Your task to perform on an android device: turn on priority inbox in the gmail app Image 0: 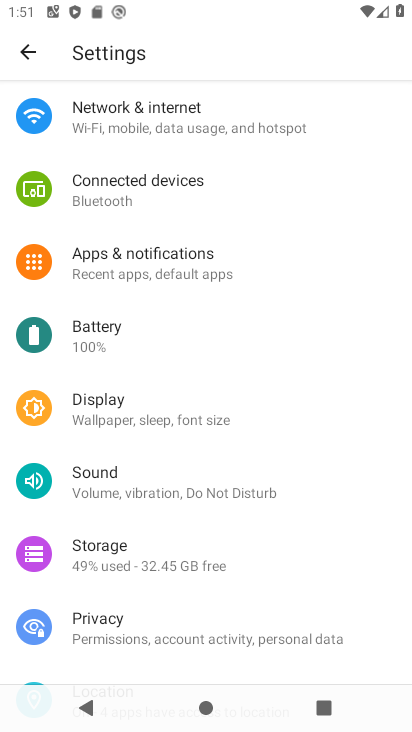
Step 0: drag from (240, 195) to (208, 567)
Your task to perform on an android device: turn on priority inbox in the gmail app Image 1: 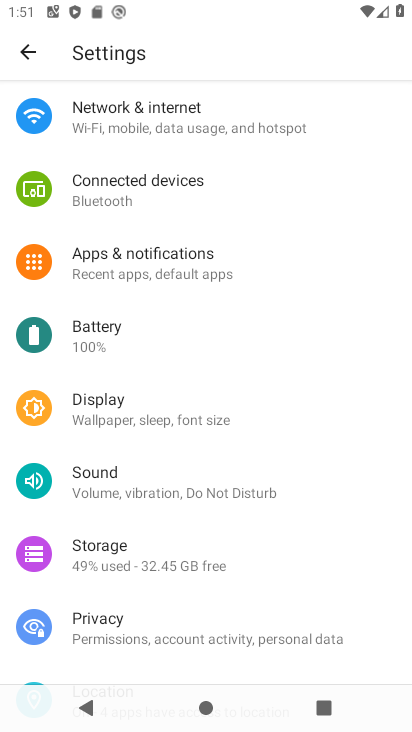
Step 1: press home button
Your task to perform on an android device: turn on priority inbox in the gmail app Image 2: 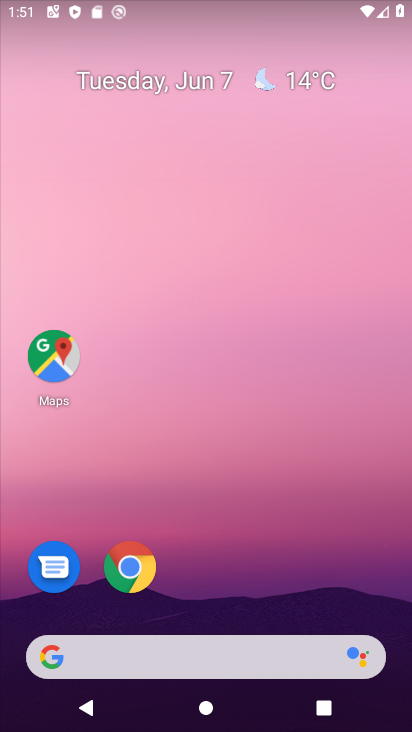
Step 2: drag from (302, 531) to (297, 0)
Your task to perform on an android device: turn on priority inbox in the gmail app Image 3: 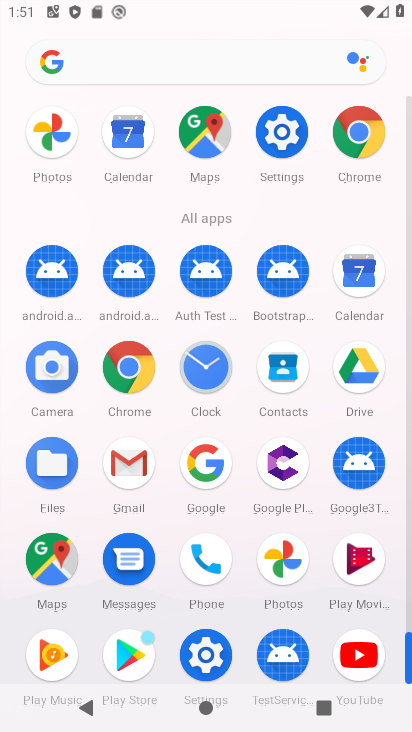
Step 3: click (147, 461)
Your task to perform on an android device: turn on priority inbox in the gmail app Image 4: 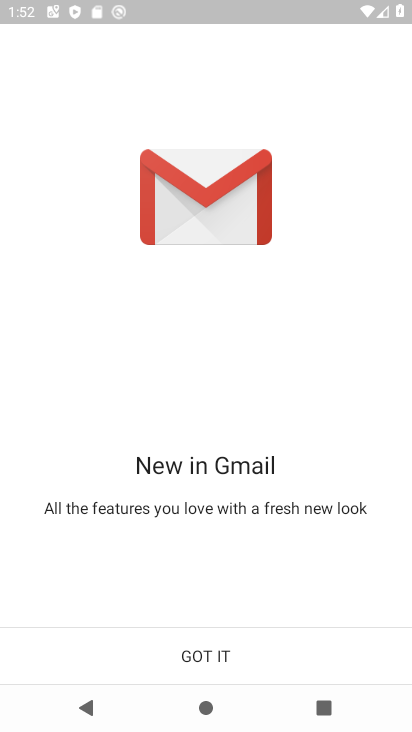
Step 4: click (198, 660)
Your task to perform on an android device: turn on priority inbox in the gmail app Image 5: 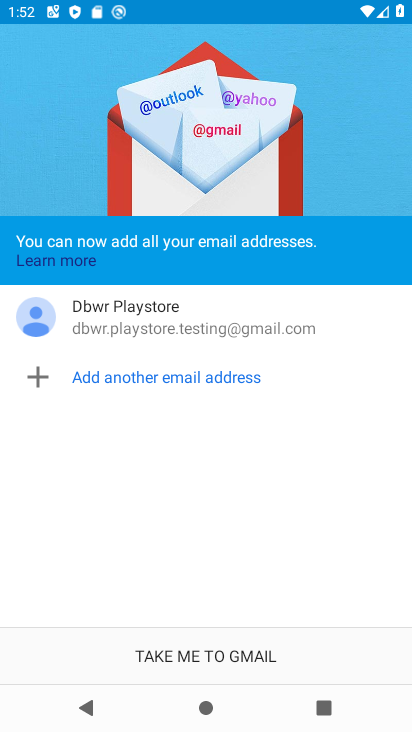
Step 5: click (198, 659)
Your task to perform on an android device: turn on priority inbox in the gmail app Image 6: 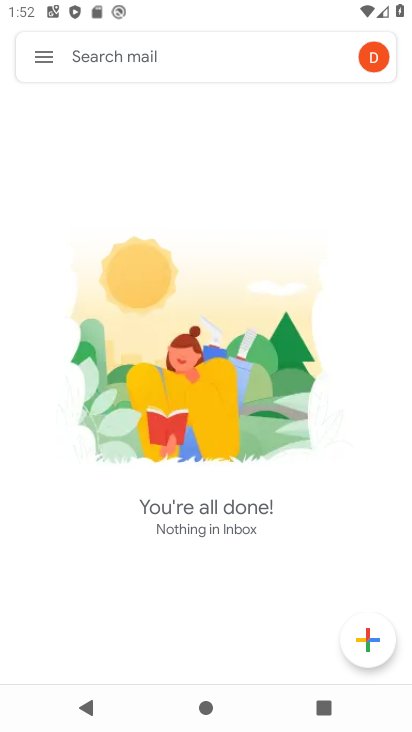
Step 6: click (34, 59)
Your task to perform on an android device: turn on priority inbox in the gmail app Image 7: 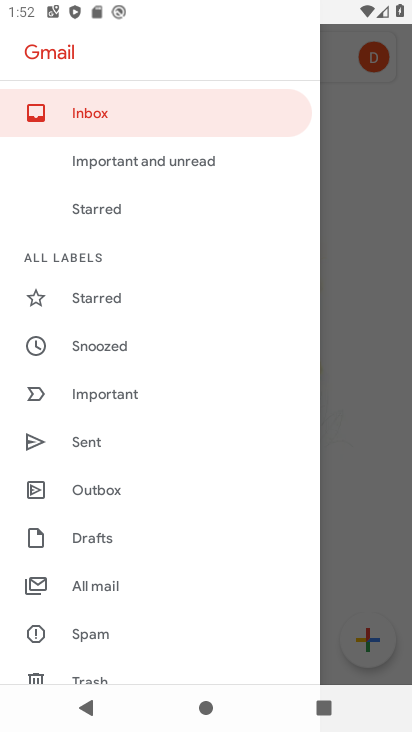
Step 7: drag from (140, 564) to (130, 118)
Your task to perform on an android device: turn on priority inbox in the gmail app Image 8: 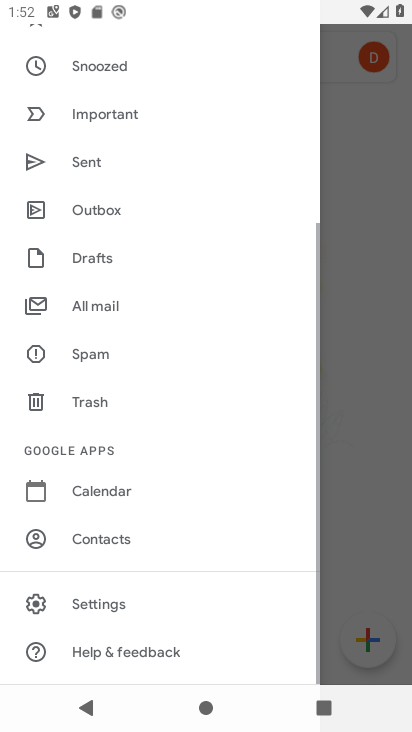
Step 8: click (94, 594)
Your task to perform on an android device: turn on priority inbox in the gmail app Image 9: 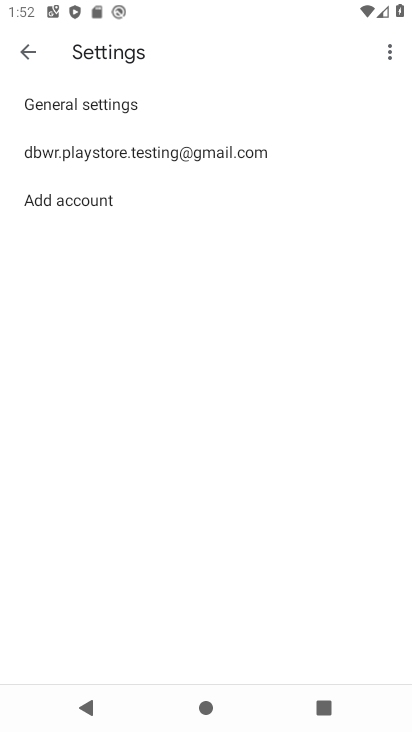
Step 9: click (39, 150)
Your task to perform on an android device: turn on priority inbox in the gmail app Image 10: 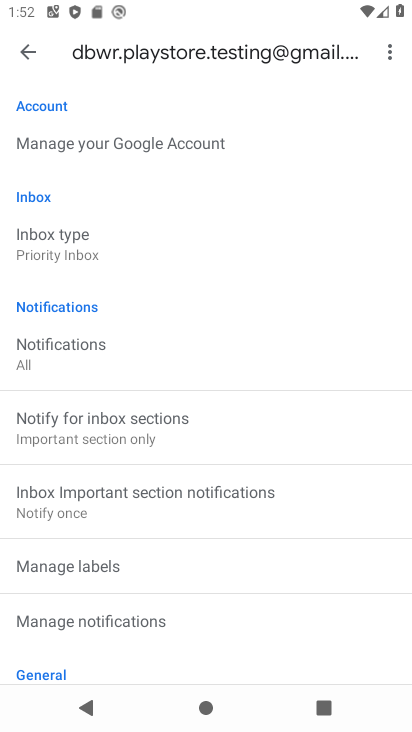
Step 10: task complete